Your task to perform on an android device: Open Maps and search for coffee Image 0: 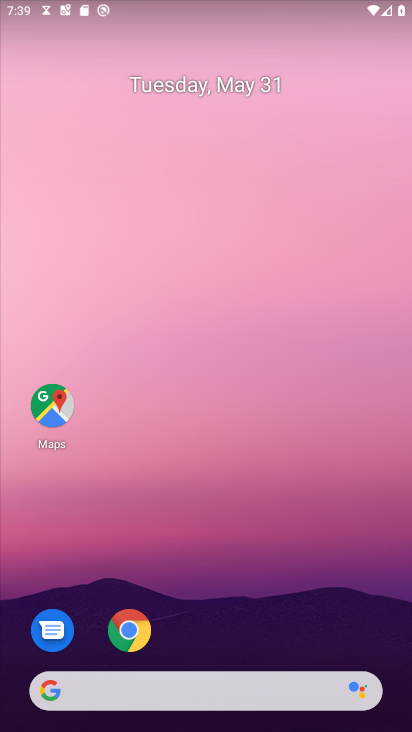
Step 0: click (50, 406)
Your task to perform on an android device: Open Maps and search for coffee Image 1: 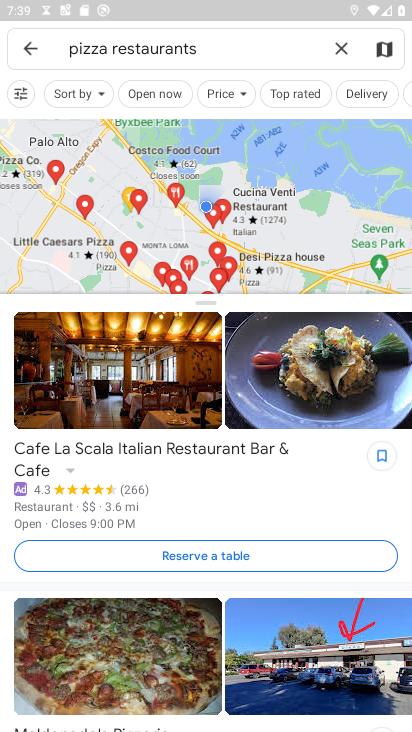
Step 1: click (340, 47)
Your task to perform on an android device: Open Maps and search for coffee Image 2: 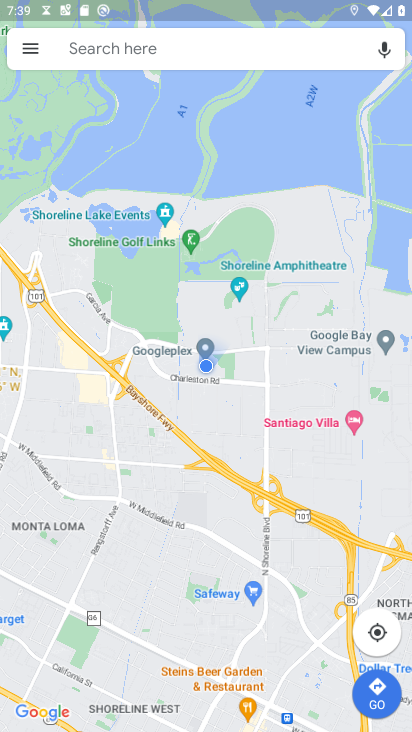
Step 2: click (277, 60)
Your task to perform on an android device: Open Maps and search for coffee Image 3: 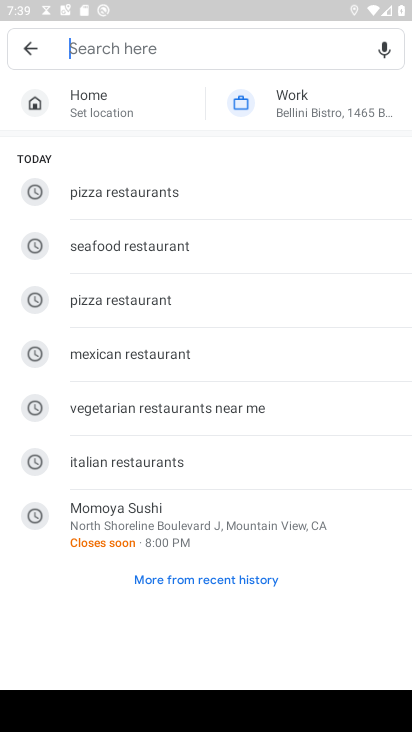
Step 3: type "coffee"
Your task to perform on an android device: Open Maps and search for coffee Image 4: 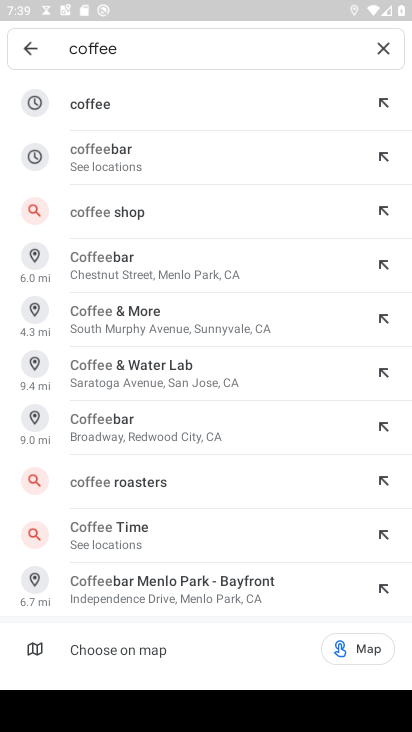
Step 4: click (113, 108)
Your task to perform on an android device: Open Maps and search for coffee Image 5: 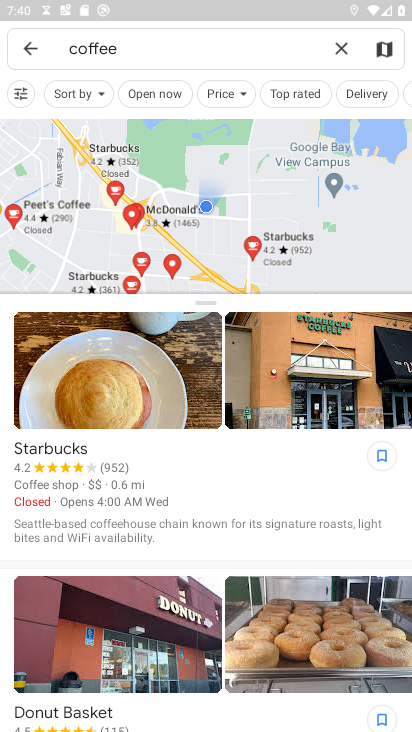
Step 5: task complete